Your task to perform on an android device: install app "Expedia: Hotels, Flights & Car" Image 0: 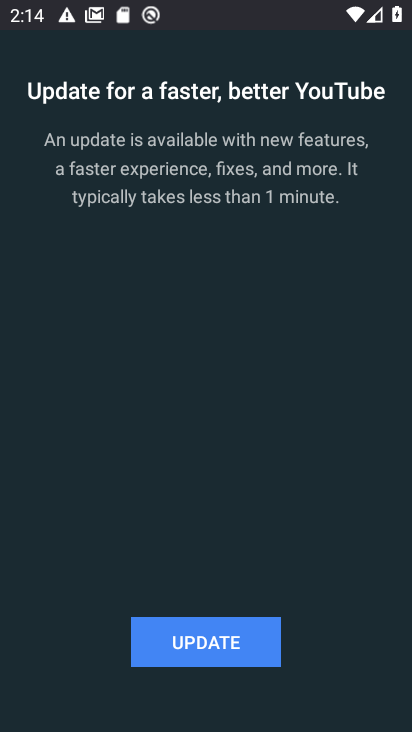
Step 0: press home button
Your task to perform on an android device: install app "Expedia: Hotels, Flights & Car" Image 1: 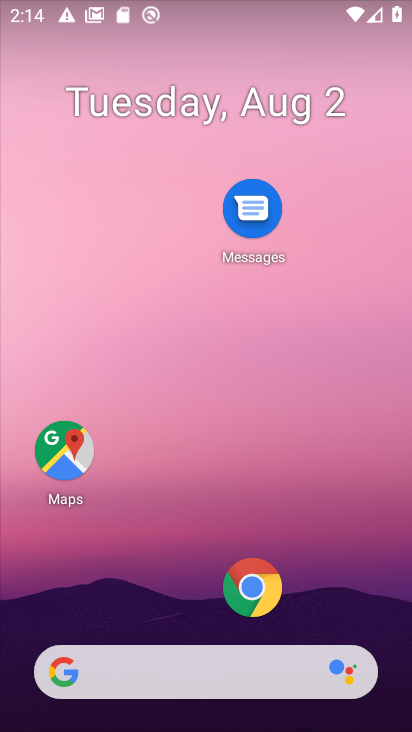
Step 1: drag from (216, 590) to (216, 259)
Your task to perform on an android device: install app "Expedia: Hotels, Flights & Car" Image 2: 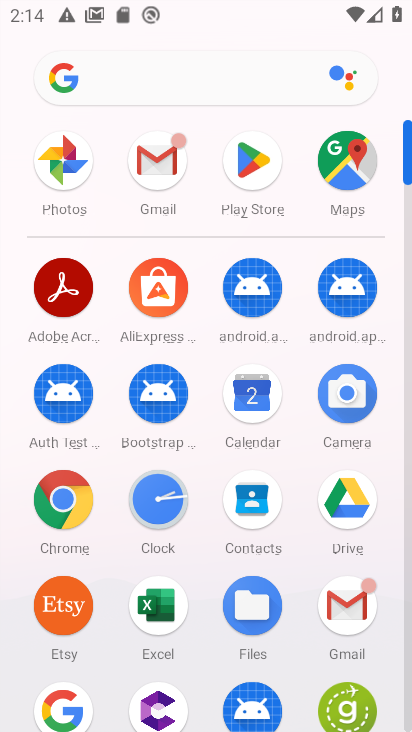
Step 2: click (245, 186)
Your task to perform on an android device: install app "Expedia: Hotels, Flights & Car" Image 3: 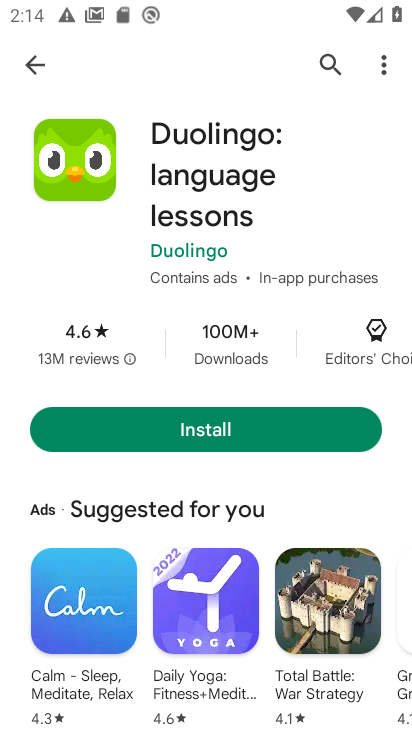
Step 3: click (324, 74)
Your task to perform on an android device: install app "Expedia: Hotels, Flights & Car" Image 4: 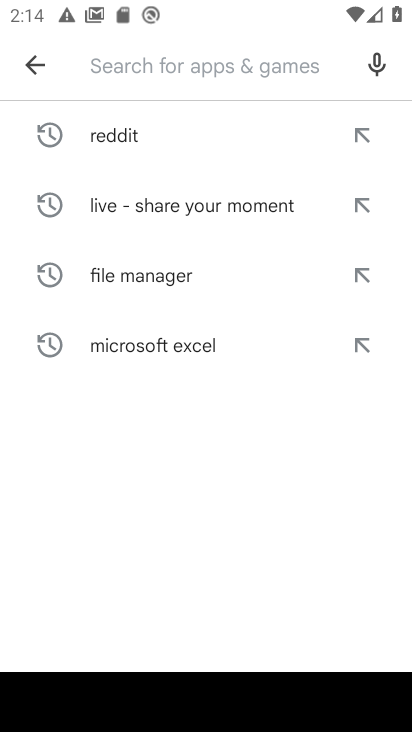
Step 4: type "Expedia: Hotels, Flights & Car"
Your task to perform on an android device: install app "Expedia: Hotels, Flights & Car" Image 5: 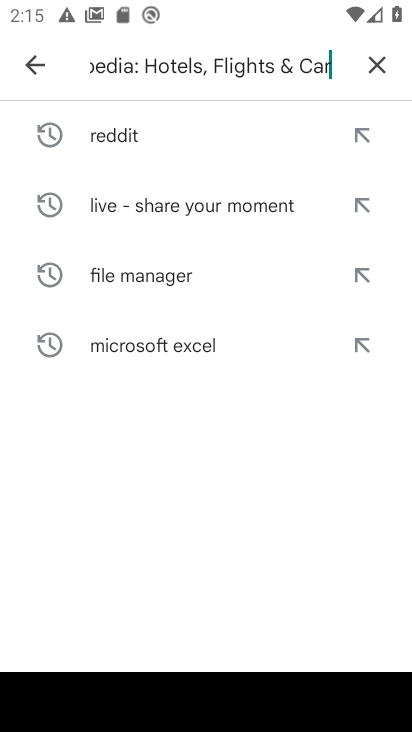
Step 5: type ""
Your task to perform on an android device: install app "Expedia: Hotels, Flights & Car" Image 6: 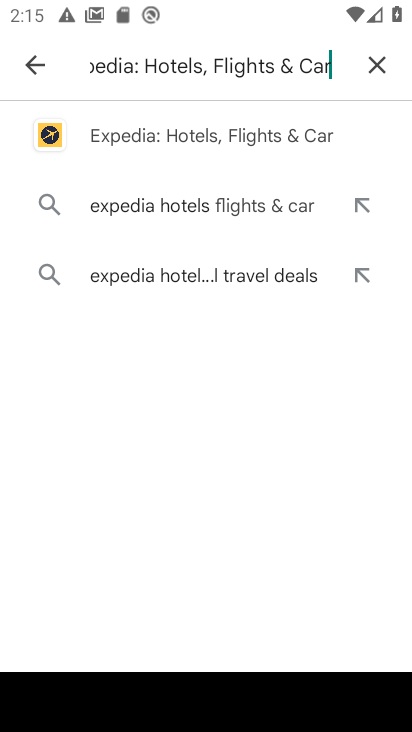
Step 6: click (218, 144)
Your task to perform on an android device: install app "Expedia: Hotels, Flights & Car" Image 7: 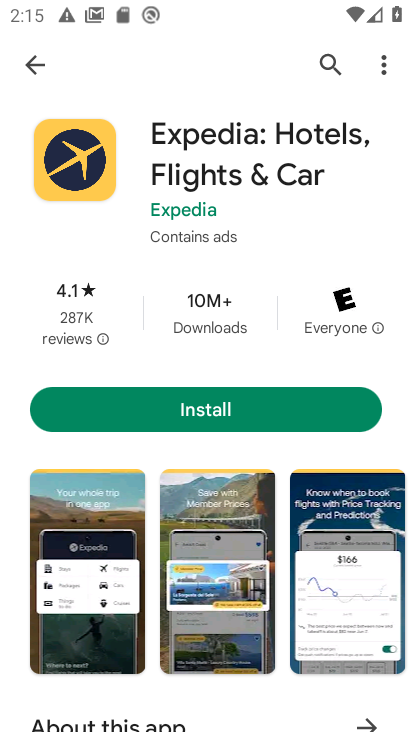
Step 7: click (249, 422)
Your task to perform on an android device: install app "Expedia: Hotels, Flights & Car" Image 8: 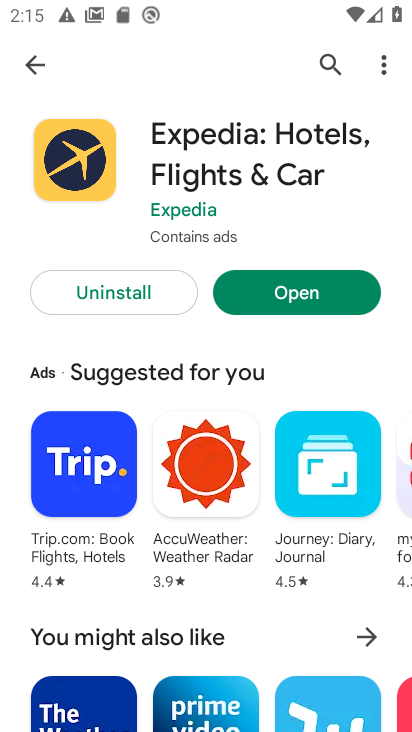
Step 8: task complete